Your task to perform on an android device: turn off location history Image 0: 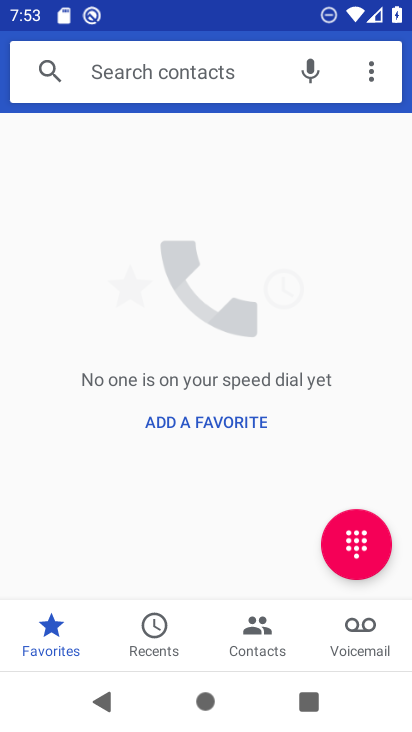
Step 0: press home button
Your task to perform on an android device: turn off location history Image 1: 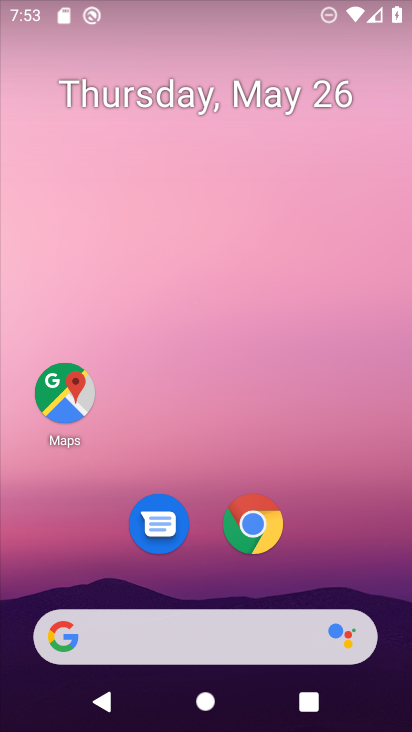
Step 1: drag from (186, 482) to (227, 32)
Your task to perform on an android device: turn off location history Image 2: 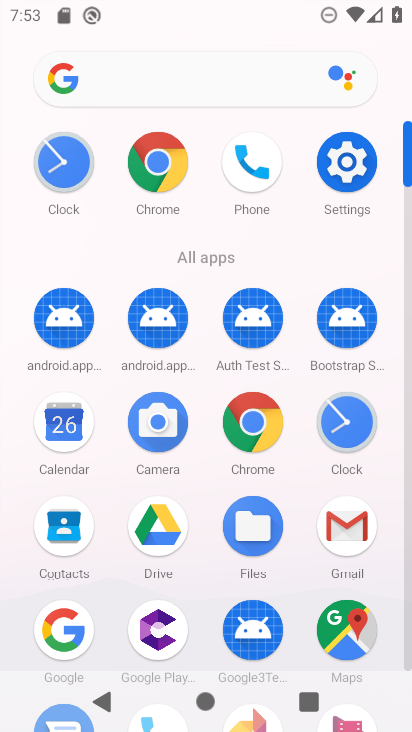
Step 2: click (343, 164)
Your task to perform on an android device: turn off location history Image 3: 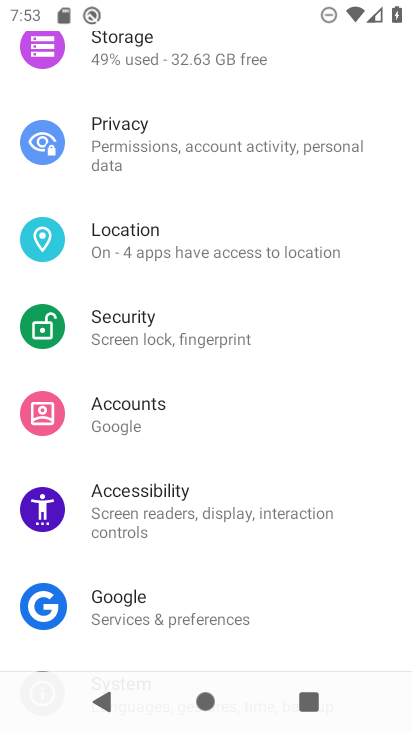
Step 3: click (252, 236)
Your task to perform on an android device: turn off location history Image 4: 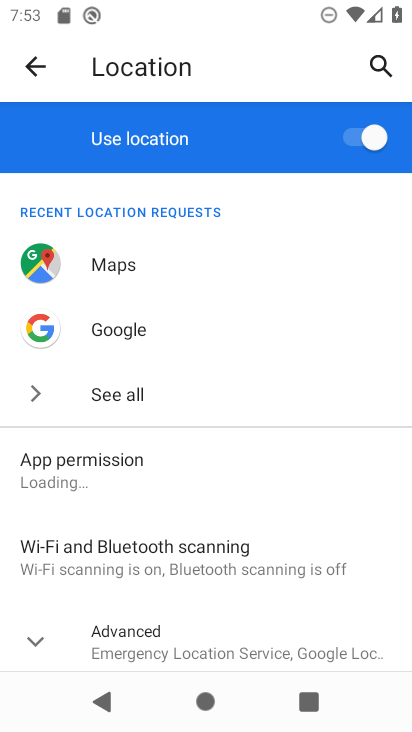
Step 4: click (34, 633)
Your task to perform on an android device: turn off location history Image 5: 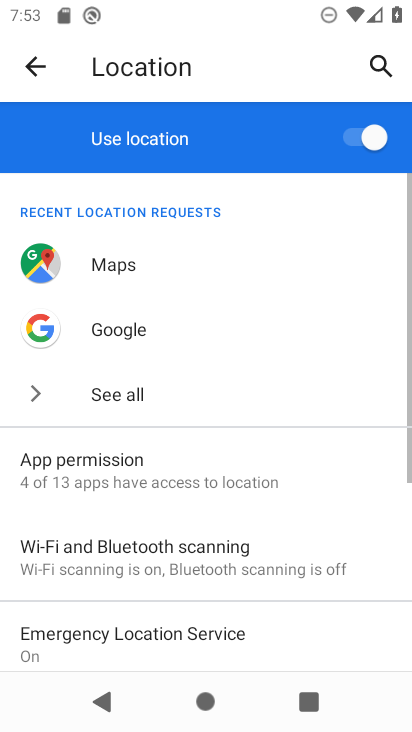
Step 5: drag from (225, 473) to (288, 147)
Your task to perform on an android device: turn off location history Image 6: 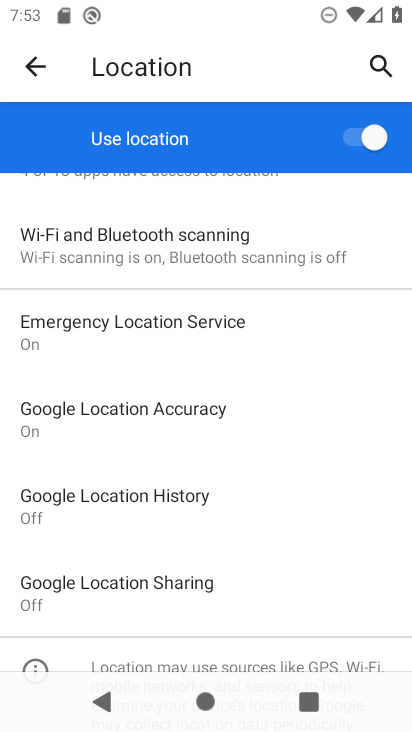
Step 6: click (160, 486)
Your task to perform on an android device: turn off location history Image 7: 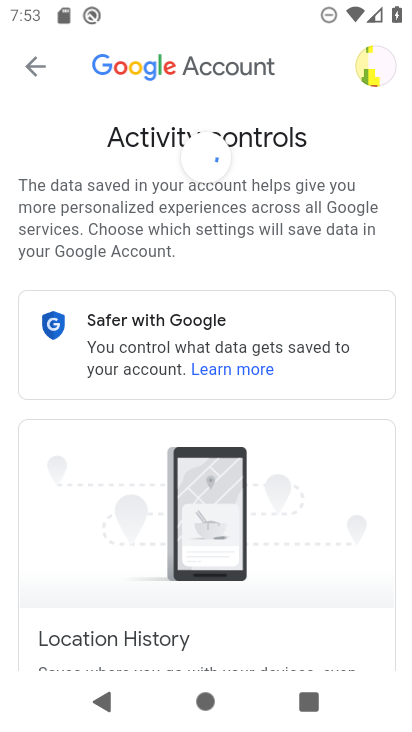
Step 7: drag from (307, 486) to (341, 98)
Your task to perform on an android device: turn off location history Image 8: 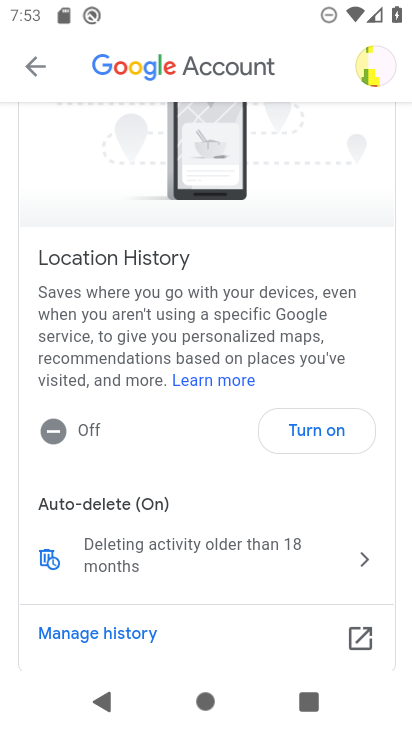
Step 8: click (315, 425)
Your task to perform on an android device: turn off location history Image 9: 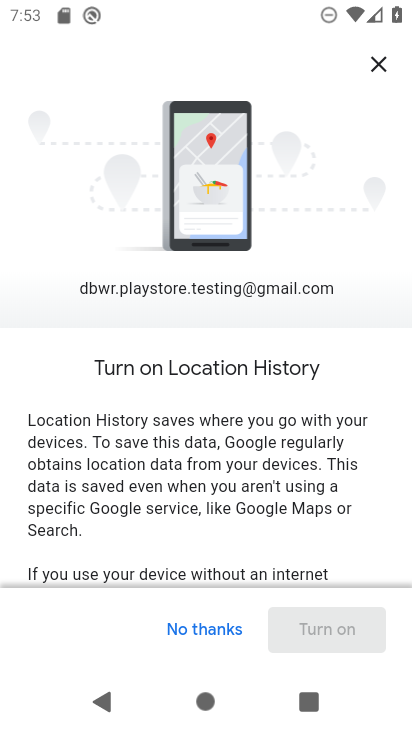
Step 9: drag from (263, 530) to (281, 102)
Your task to perform on an android device: turn off location history Image 10: 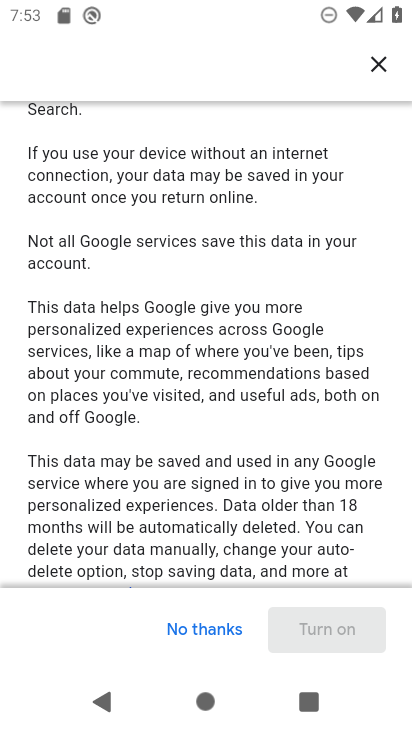
Step 10: drag from (261, 403) to (300, 136)
Your task to perform on an android device: turn off location history Image 11: 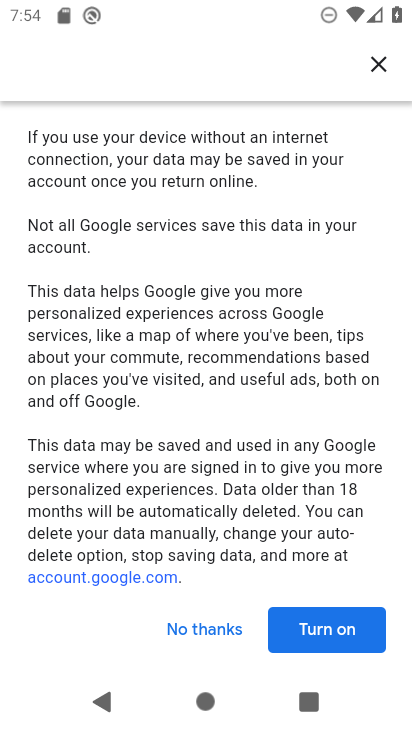
Step 11: click (346, 628)
Your task to perform on an android device: turn off location history Image 12: 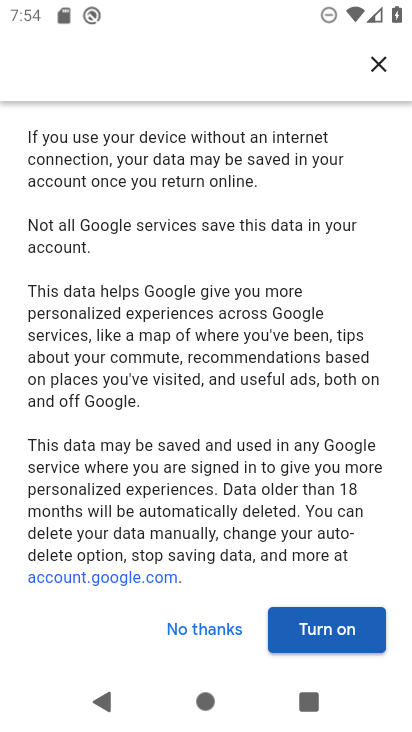
Step 12: click (346, 626)
Your task to perform on an android device: turn off location history Image 13: 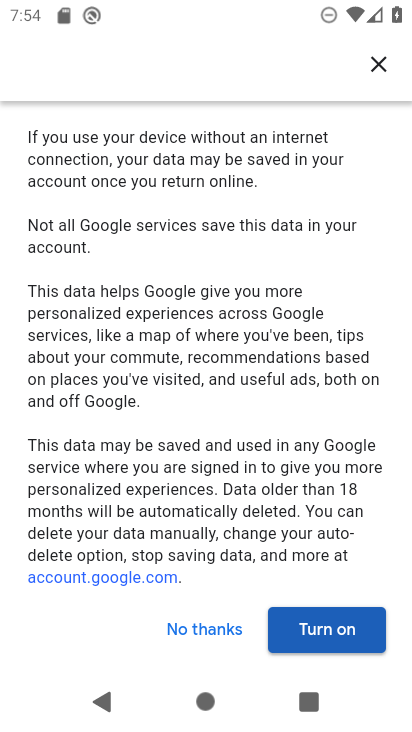
Step 13: click (343, 629)
Your task to perform on an android device: turn off location history Image 14: 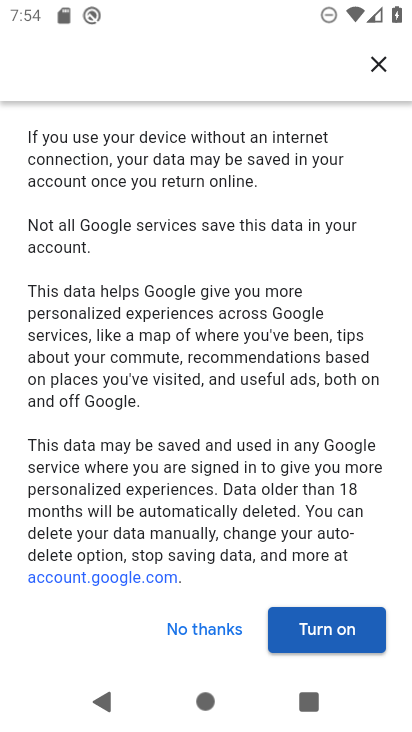
Step 14: click (343, 626)
Your task to perform on an android device: turn off location history Image 15: 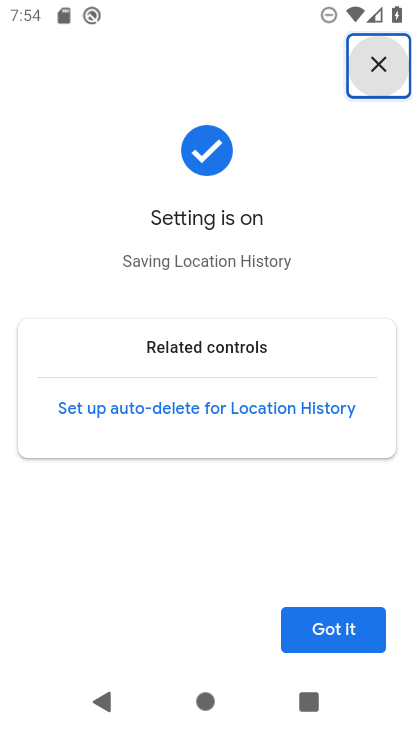
Step 15: click (343, 628)
Your task to perform on an android device: turn off location history Image 16: 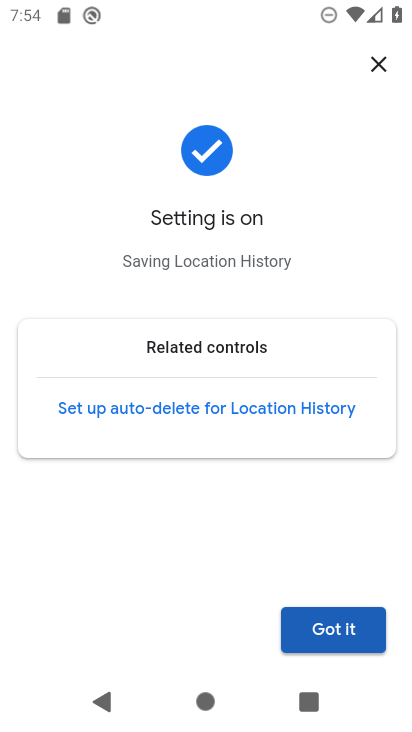
Step 16: click (343, 626)
Your task to perform on an android device: turn off location history Image 17: 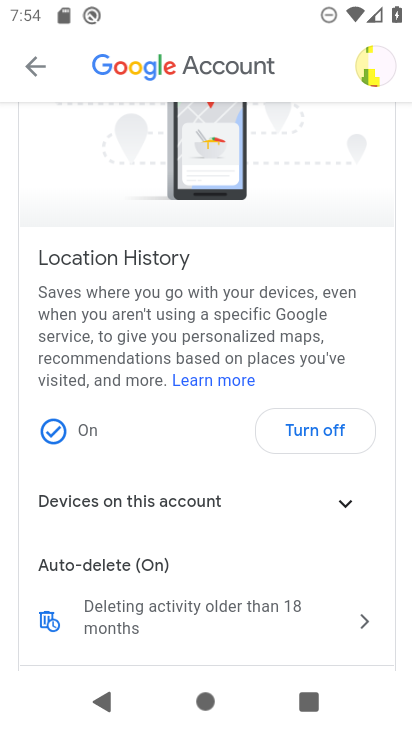
Step 17: task complete